Your task to perform on an android device: Open wifi settings Image 0: 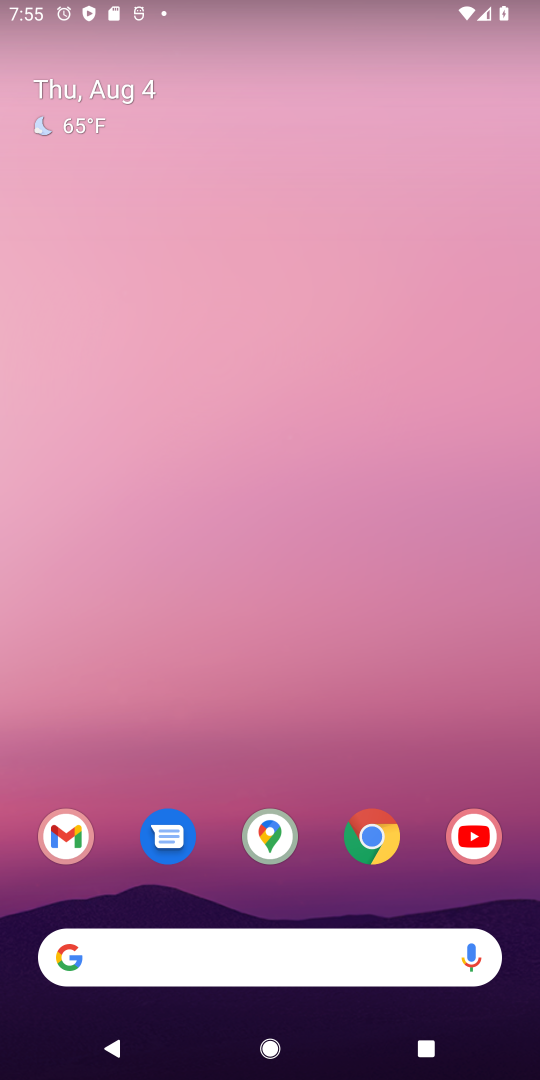
Step 0: drag from (70, 9) to (291, 827)
Your task to perform on an android device: Open wifi settings Image 1: 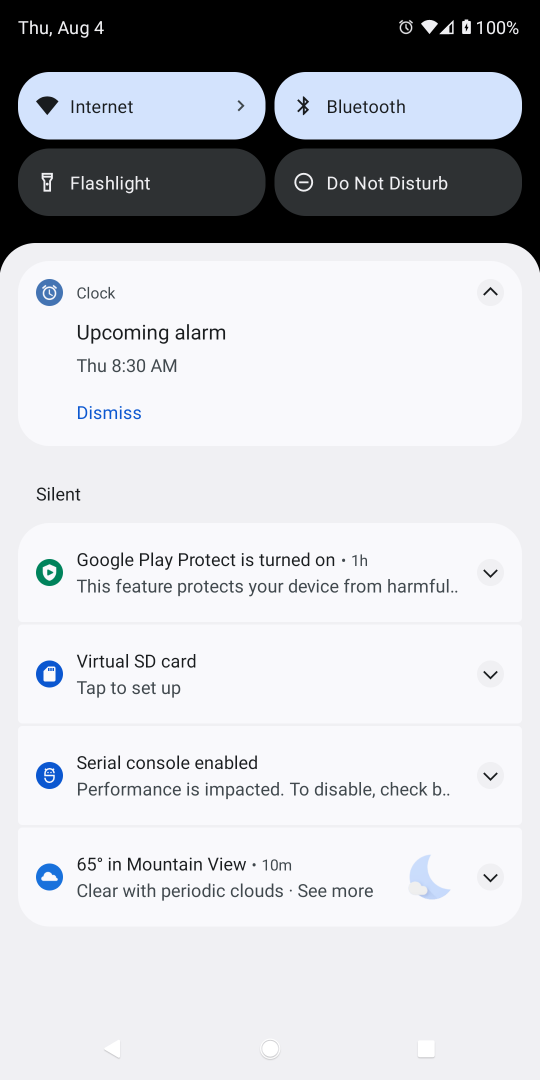
Step 1: click (109, 105)
Your task to perform on an android device: Open wifi settings Image 2: 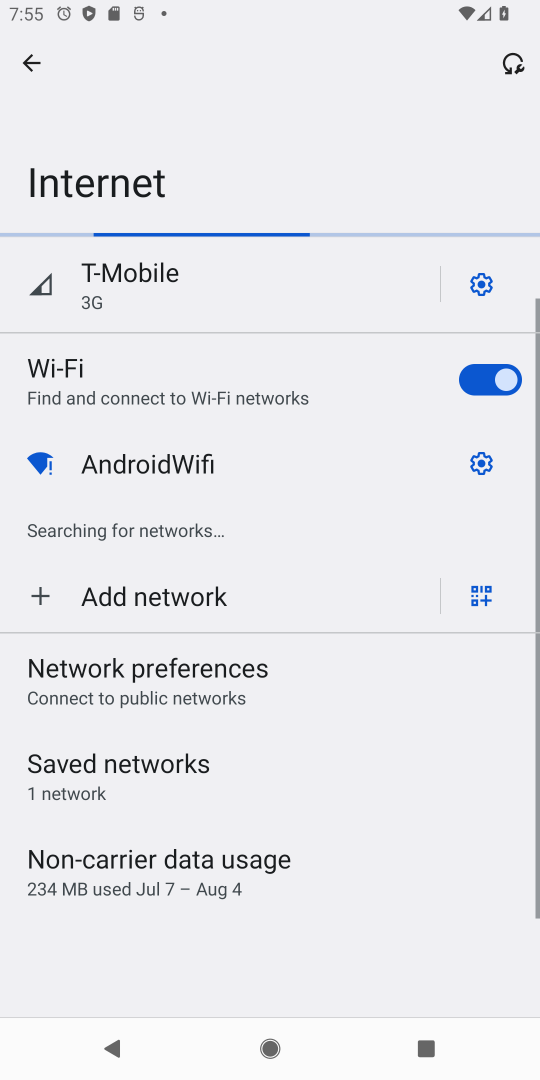
Step 2: task complete